Your task to perform on an android device: open app "AliExpress" (install if not already installed), go to login, and select forgot password Image 0: 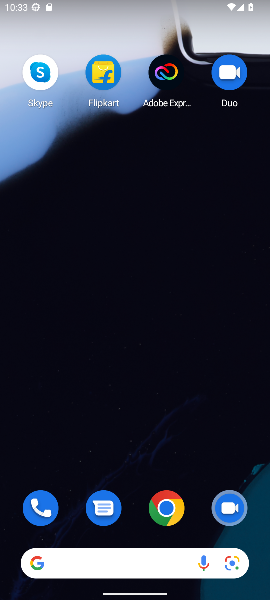
Step 0: drag from (130, 551) to (129, 184)
Your task to perform on an android device: open app "AliExpress" (install if not already installed), go to login, and select forgot password Image 1: 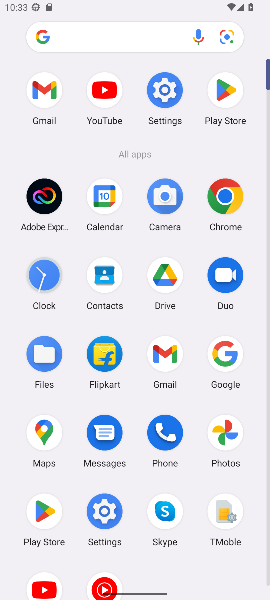
Step 1: click (223, 93)
Your task to perform on an android device: open app "AliExpress" (install if not already installed), go to login, and select forgot password Image 2: 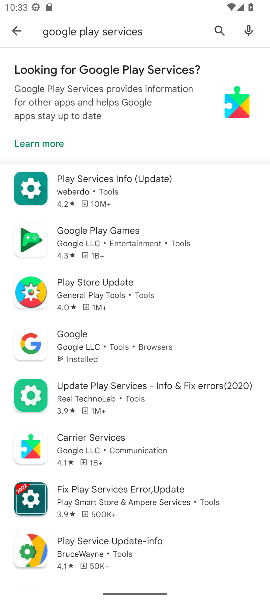
Step 2: click (221, 28)
Your task to perform on an android device: open app "AliExpress" (install if not already installed), go to login, and select forgot password Image 3: 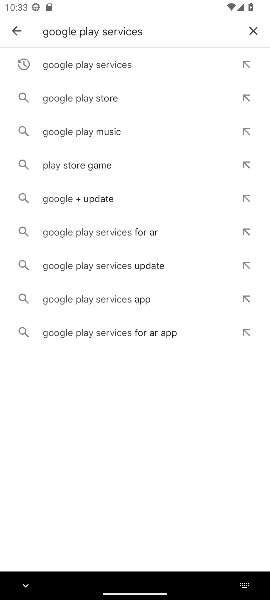
Step 3: click (247, 27)
Your task to perform on an android device: open app "AliExpress" (install if not already installed), go to login, and select forgot password Image 4: 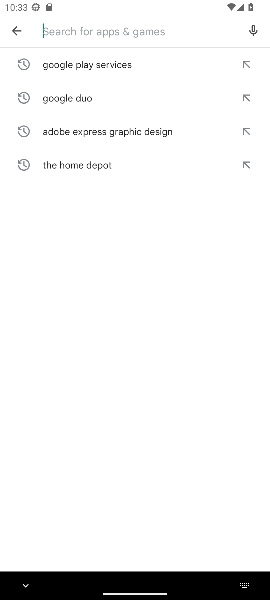
Step 4: type "AliExpress"
Your task to perform on an android device: open app "AliExpress" (install if not already installed), go to login, and select forgot password Image 5: 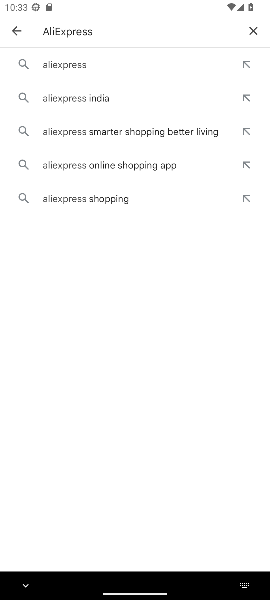
Step 5: click (81, 65)
Your task to perform on an android device: open app "AliExpress" (install if not already installed), go to login, and select forgot password Image 6: 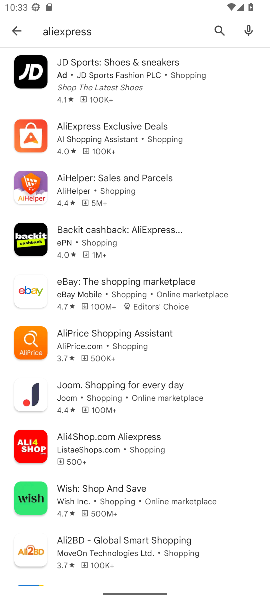
Step 6: click (81, 139)
Your task to perform on an android device: open app "AliExpress" (install if not already installed), go to login, and select forgot password Image 7: 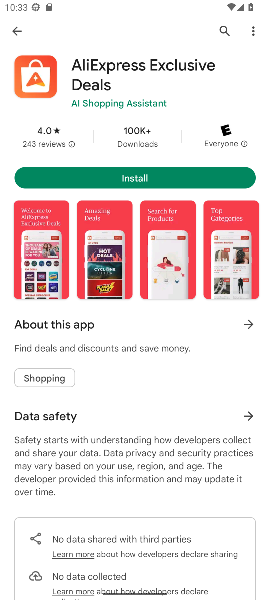
Step 7: click (146, 179)
Your task to perform on an android device: open app "AliExpress" (install if not already installed), go to login, and select forgot password Image 8: 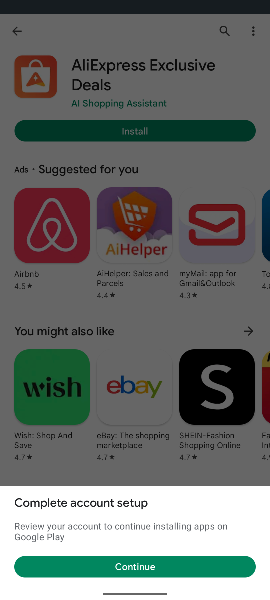
Step 8: click (116, 565)
Your task to perform on an android device: open app "AliExpress" (install if not already installed), go to login, and select forgot password Image 9: 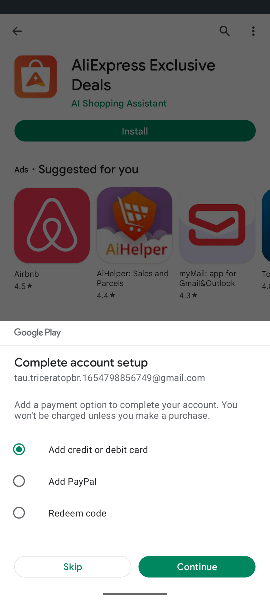
Step 9: click (68, 563)
Your task to perform on an android device: open app "AliExpress" (install if not already installed), go to login, and select forgot password Image 10: 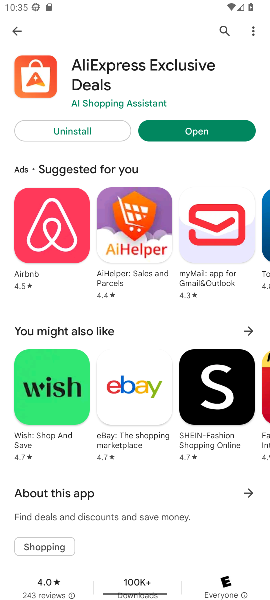
Step 10: click (170, 136)
Your task to perform on an android device: open app "AliExpress" (install if not already installed), go to login, and select forgot password Image 11: 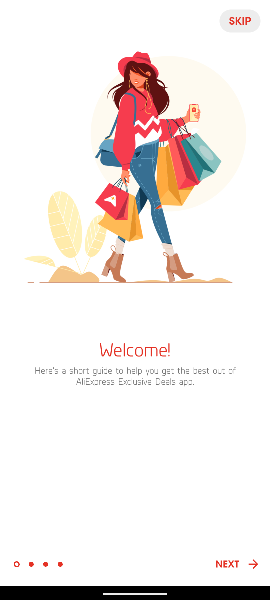
Step 11: click (227, 564)
Your task to perform on an android device: open app "AliExpress" (install if not already installed), go to login, and select forgot password Image 12: 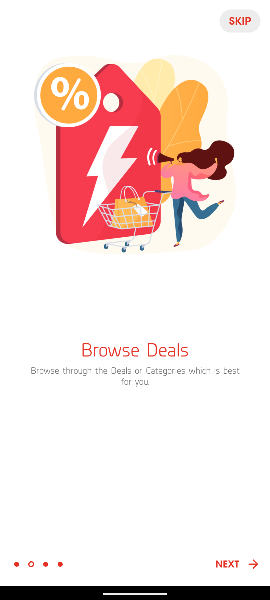
Step 12: click (227, 564)
Your task to perform on an android device: open app "AliExpress" (install if not already installed), go to login, and select forgot password Image 13: 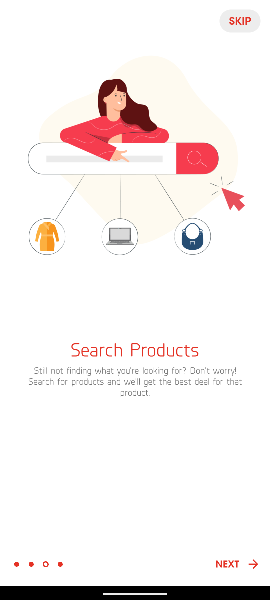
Step 13: click (227, 564)
Your task to perform on an android device: open app "AliExpress" (install if not already installed), go to login, and select forgot password Image 14: 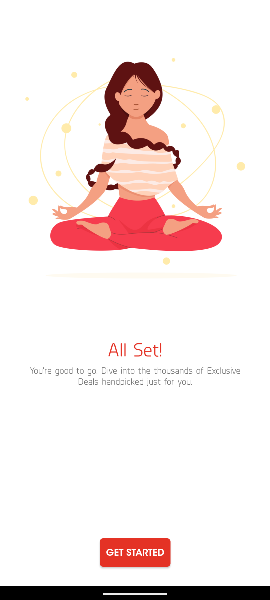
Step 14: click (122, 548)
Your task to perform on an android device: open app "AliExpress" (install if not already installed), go to login, and select forgot password Image 15: 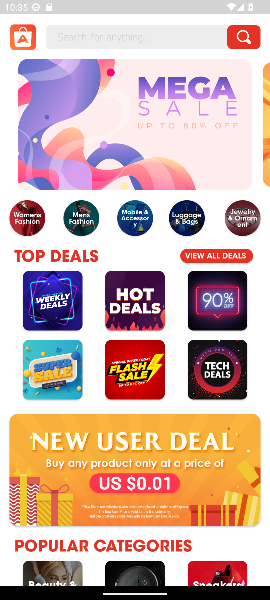
Step 15: task complete